Your task to perform on an android device: refresh tabs in the chrome app Image 0: 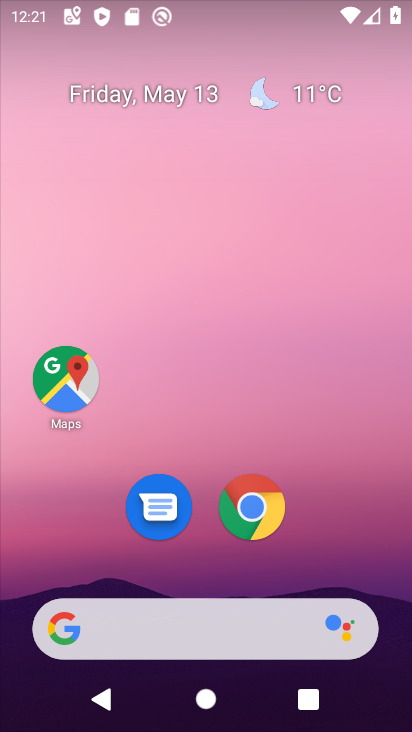
Step 0: click (244, 542)
Your task to perform on an android device: refresh tabs in the chrome app Image 1: 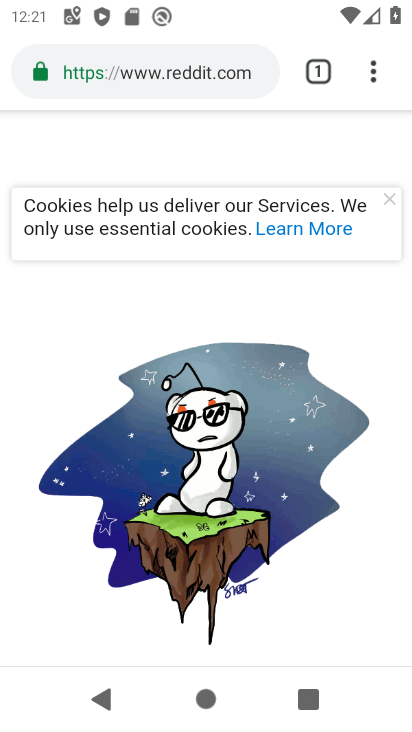
Step 1: click (371, 80)
Your task to perform on an android device: refresh tabs in the chrome app Image 2: 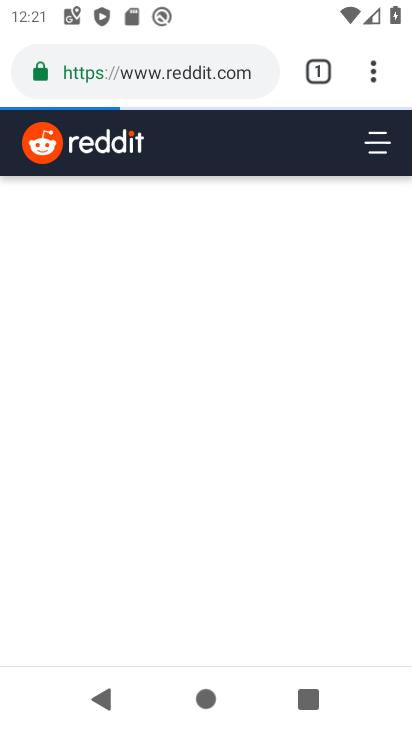
Step 2: click (367, 76)
Your task to perform on an android device: refresh tabs in the chrome app Image 3: 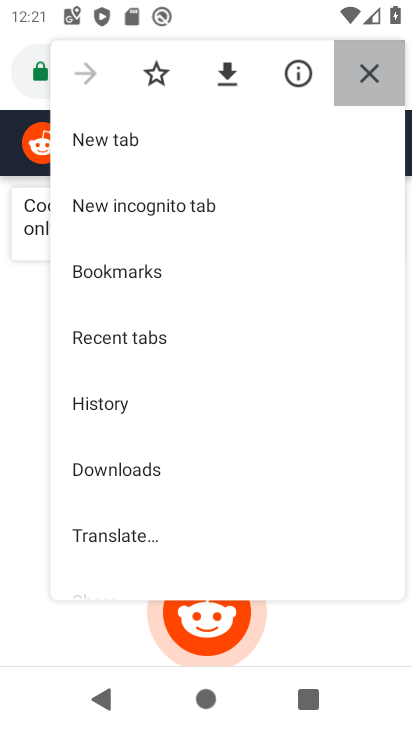
Step 3: click (365, 66)
Your task to perform on an android device: refresh tabs in the chrome app Image 4: 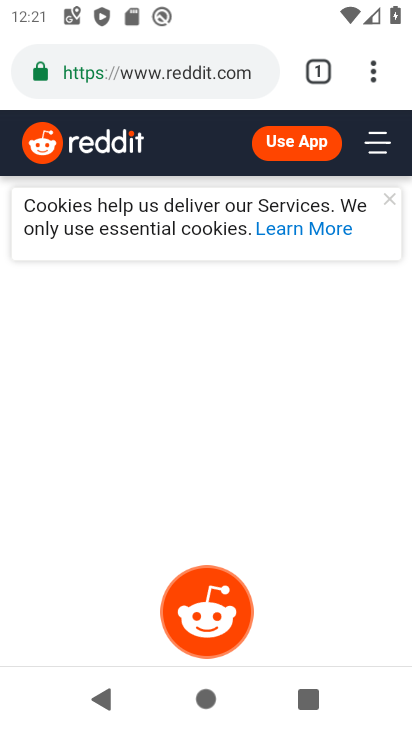
Step 4: click (362, 66)
Your task to perform on an android device: refresh tabs in the chrome app Image 5: 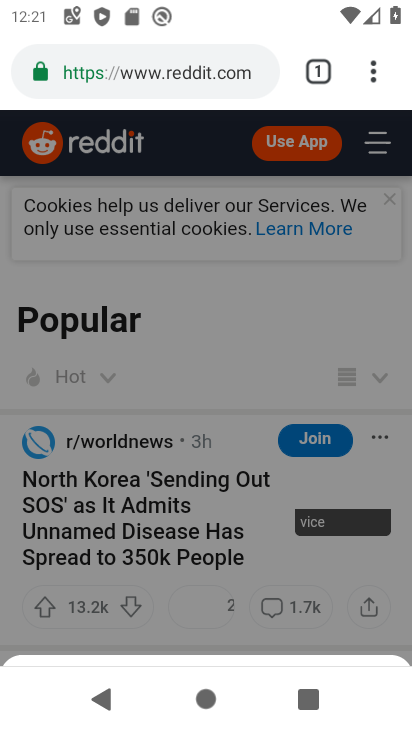
Step 5: click (362, 68)
Your task to perform on an android device: refresh tabs in the chrome app Image 6: 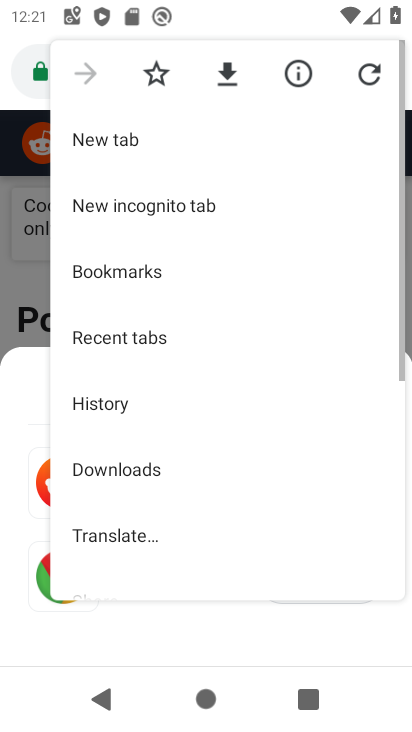
Step 6: click (373, 72)
Your task to perform on an android device: refresh tabs in the chrome app Image 7: 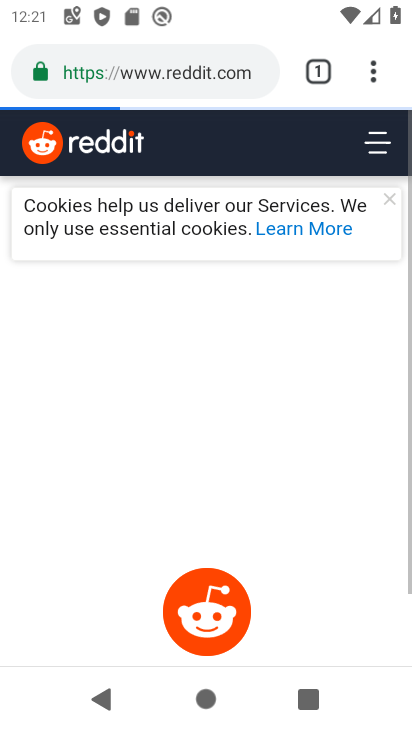
Step 7: task complete